Your task to perform on an android device: Go to CNN.com Image 0: 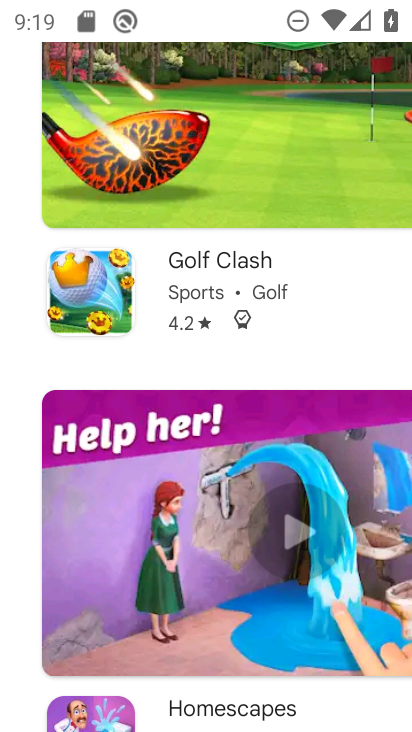
Step 0: press home button
Your task to perform on an android device: Go to CNN.com Image 1: 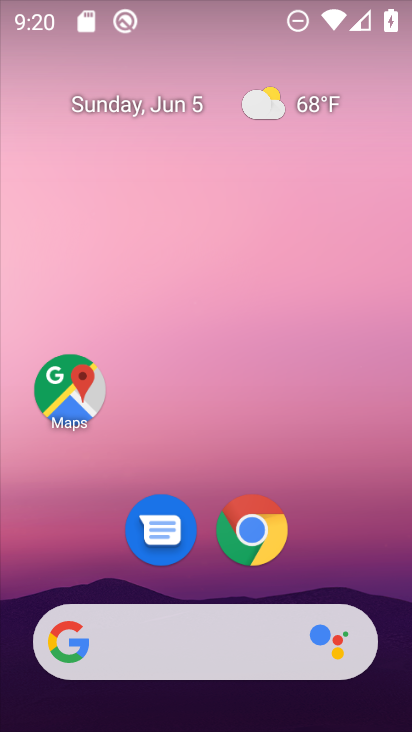
Step 1: click (250, 529)
Your task to perform on an android device: Go to CNN.com Image 2: 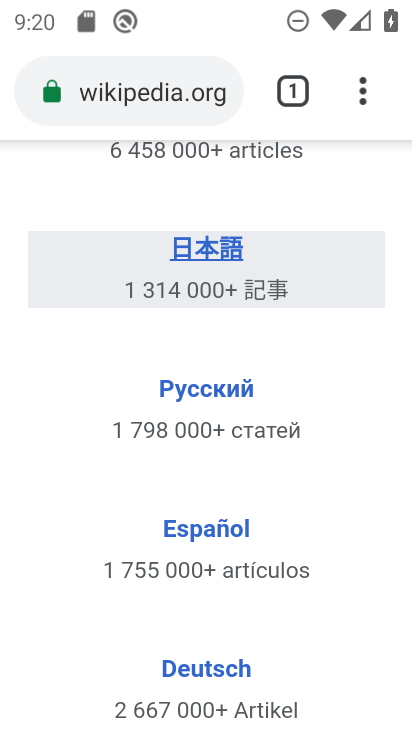
Step 2: click (197, 70)
Your task to perform on an android device: Go to CNN.com Image 3: 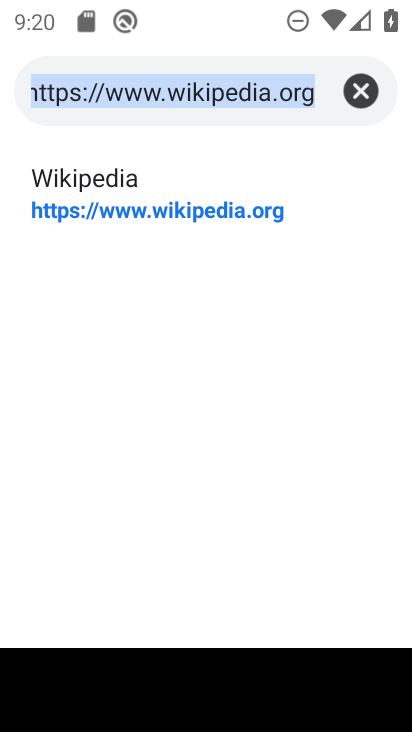
Step 3: click (362, 85)
Your task to perform on an android device: Go to CNN.com Image 4: 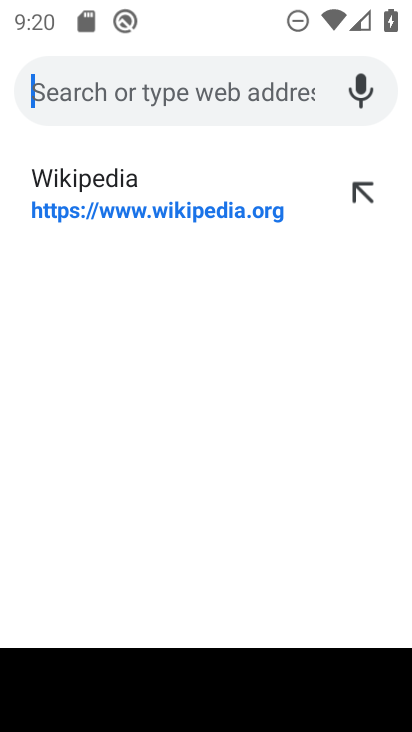
Step 4: type "cnn.com"
Your task to perform on an android device: Go to CNN.com Image 5: 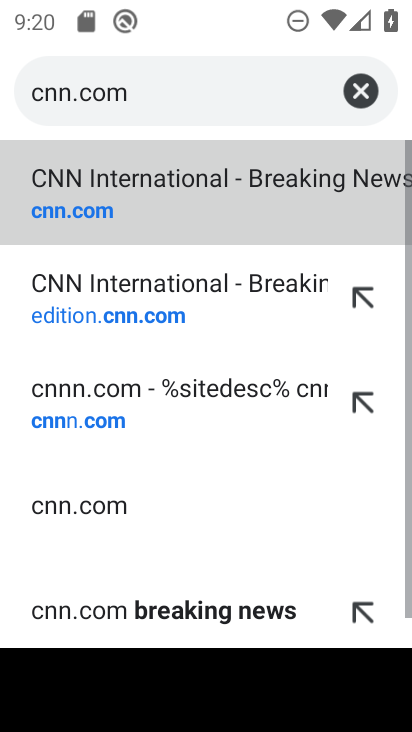
Step 5: click (102, 186)
Your task to perform on an android device: Go to CNN.com Image 6: 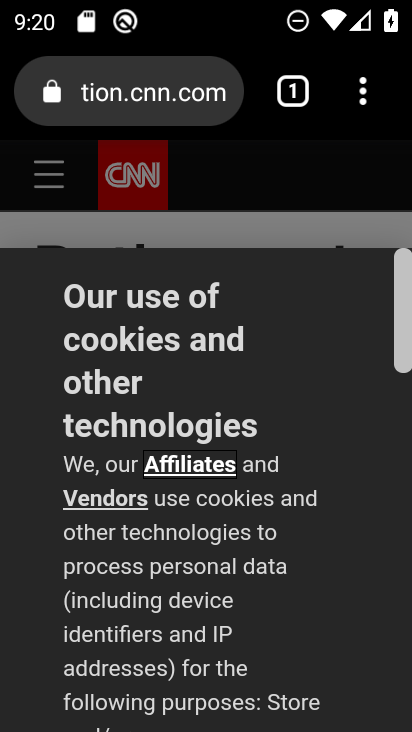
Step 6: task complete